Your task to perform on an android device: turn off improve location accuracy Image 0: 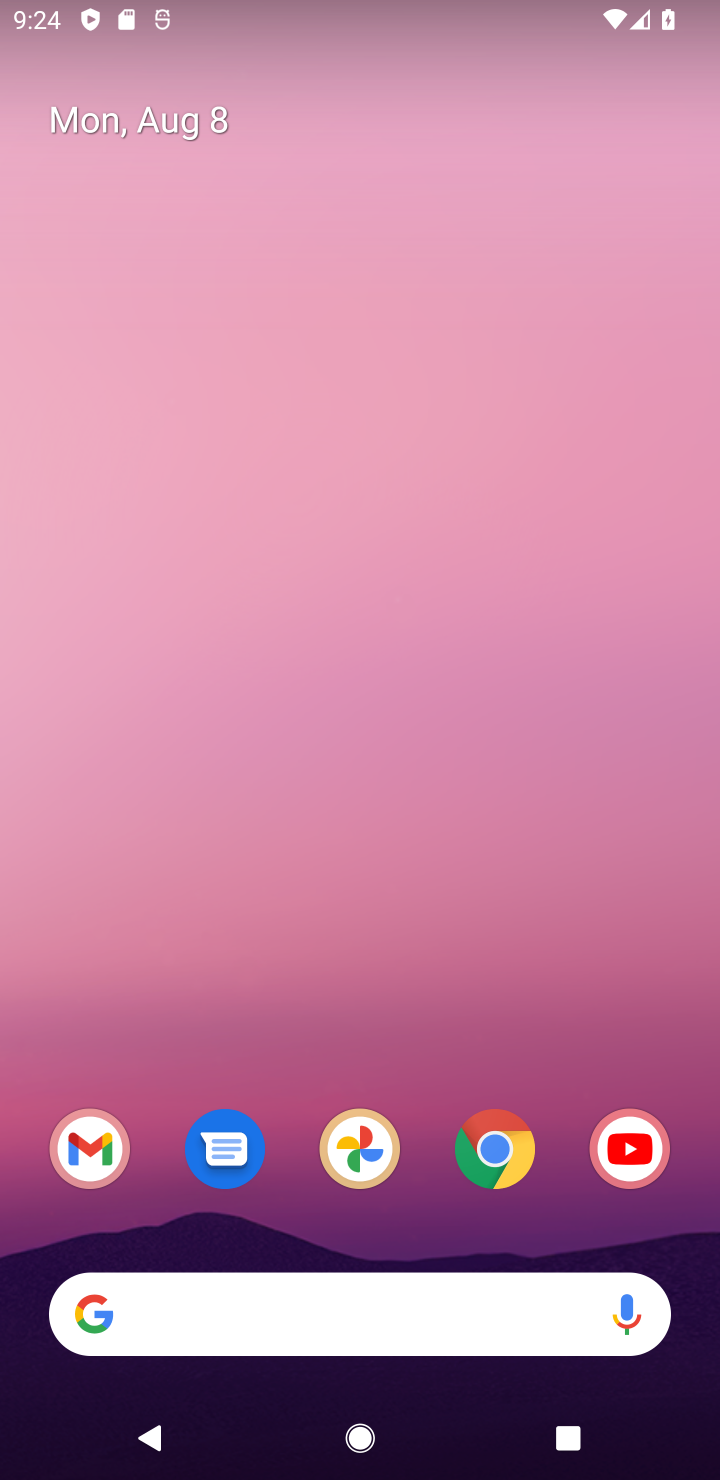
Step 0: drag from (361, 1277) to (430, 450)
Your task to perform on an android device: turn off improve location accuracy Image 1: 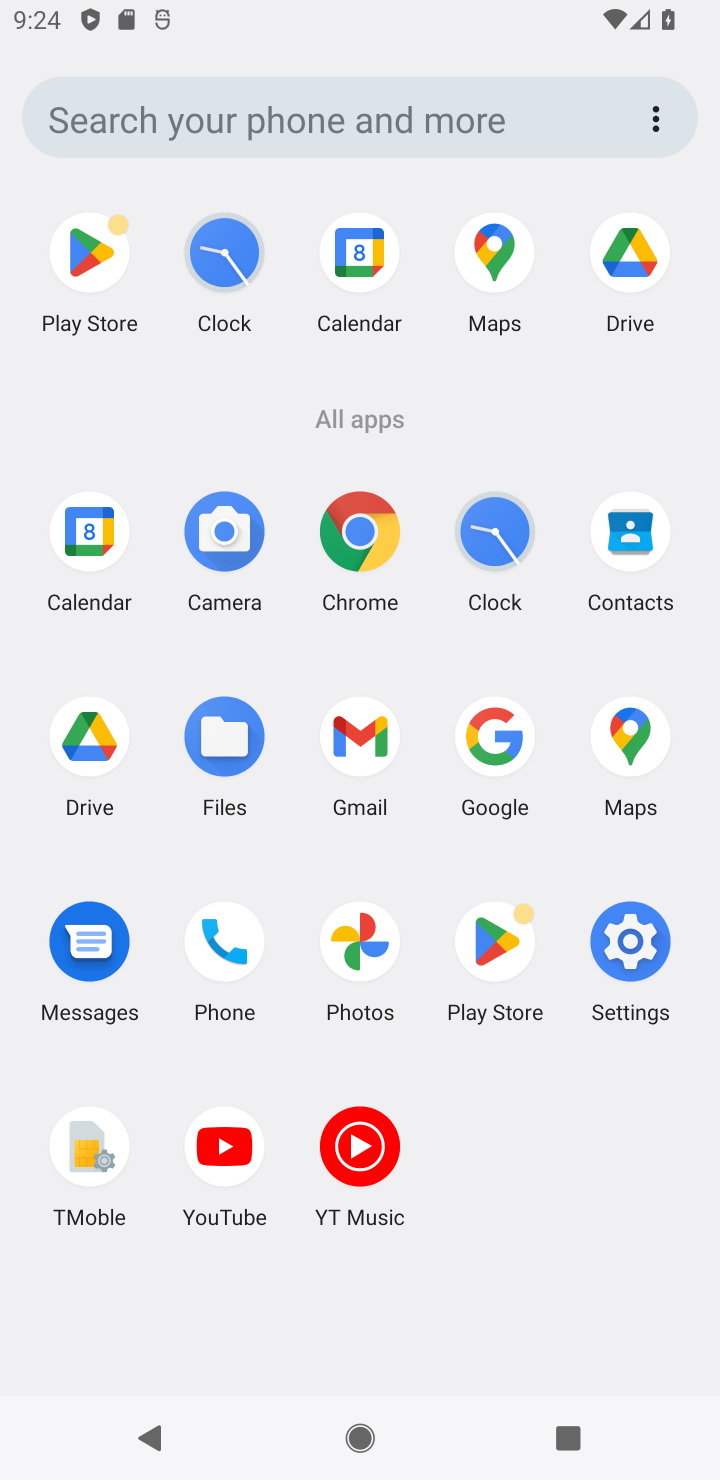
Step 1: click (638, 946)
Your task to perform on an android device: turn off improve location accuracy Image 2: 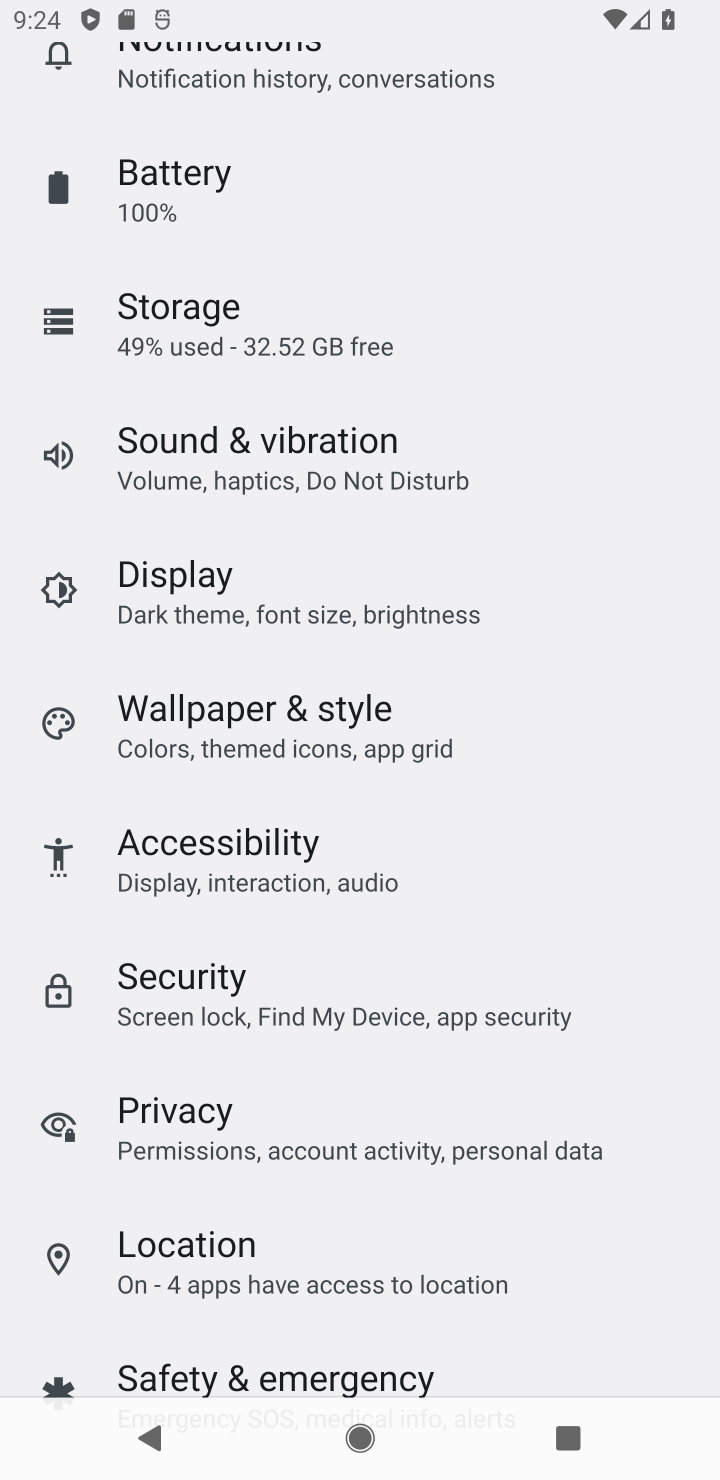
Step 2: click (275, 1253)
Your task to perform on an android device: turn off improve location accuracy Image 3: 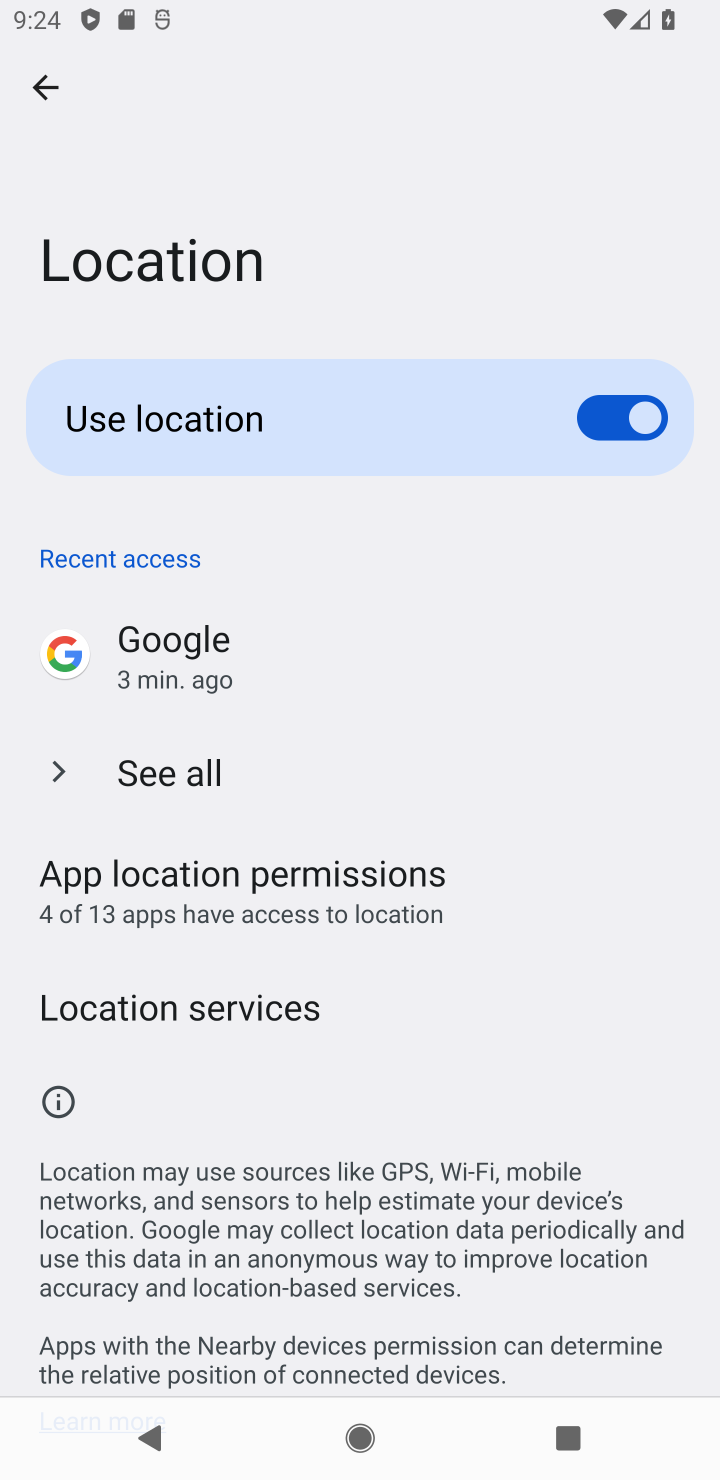
Step 3: click (231, 1025)
Your task to perform on an android device: turn off improve location accuracy Image 4: 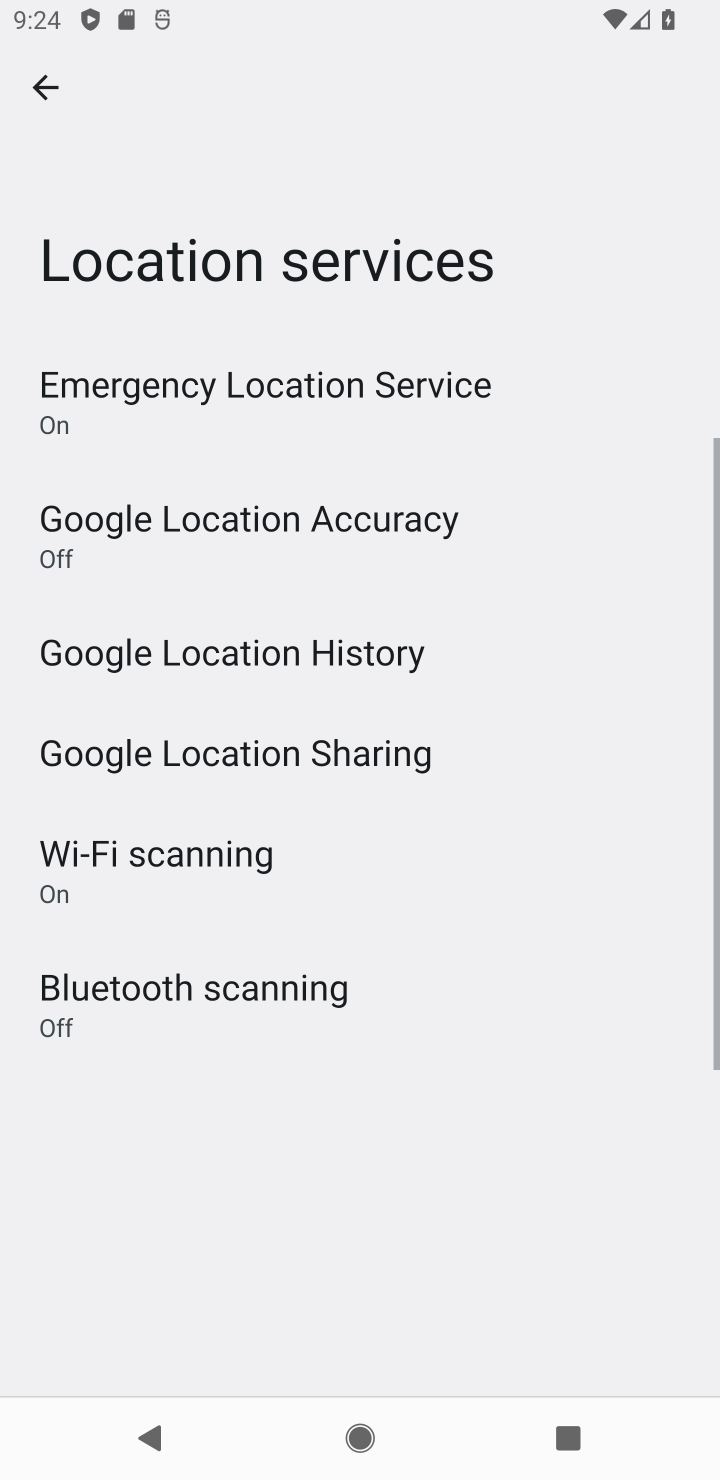
Step 4: click (138, 551)
Your task to perform on an android device: turn off improve location accuracy Image 5: 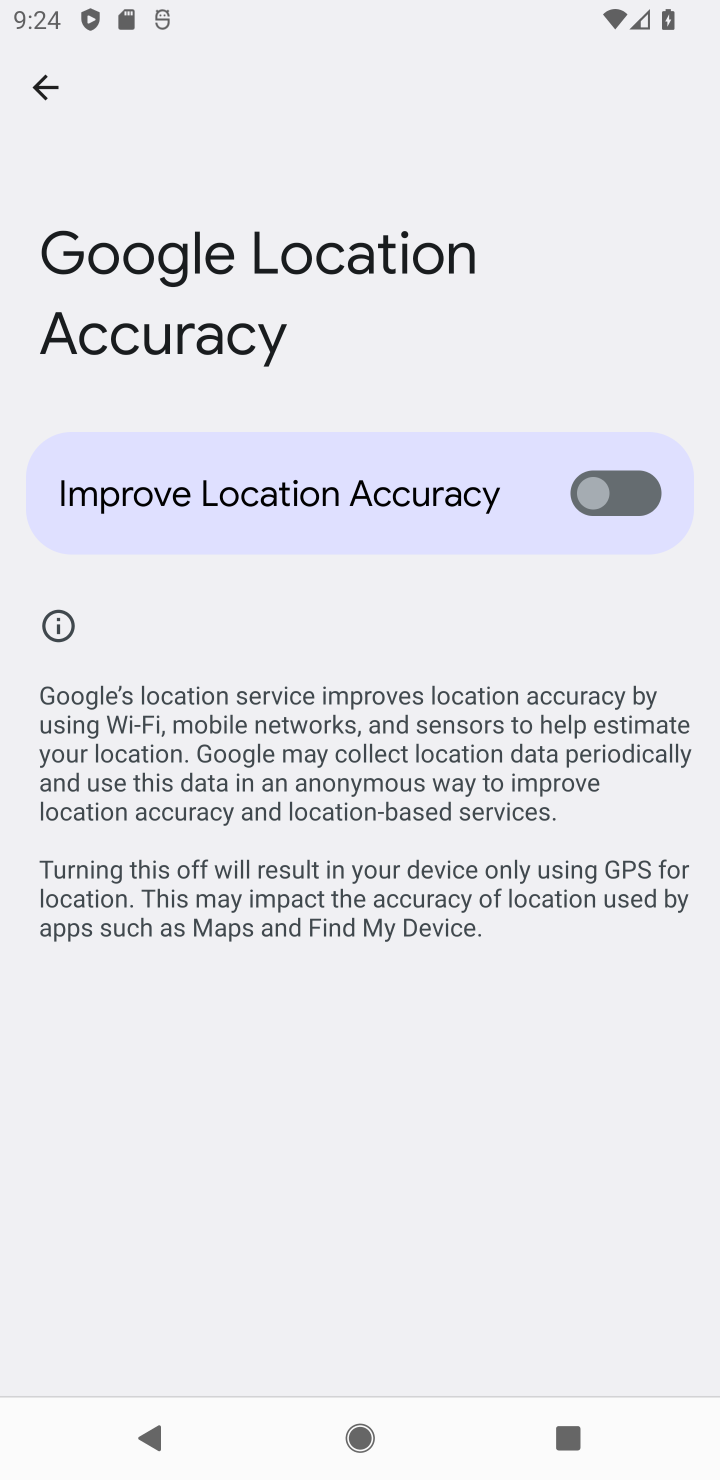
Step 5: task complete